Your task to perform on an android device: Go to Reddit.com Image 0: 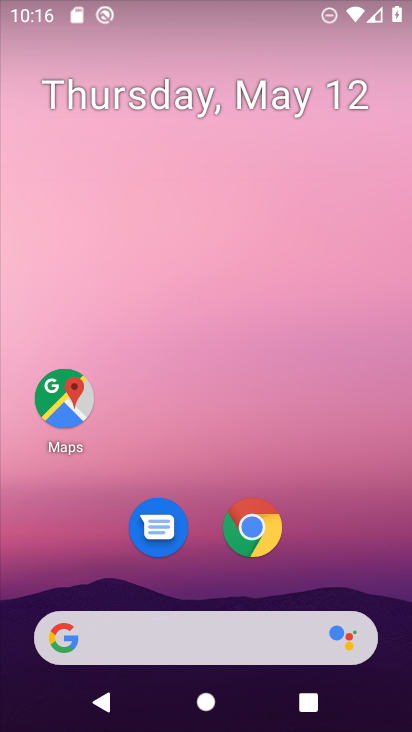
Step 0: click (245, 556)
Your task to perform on an android device: Go to Reddit.com Image 1: 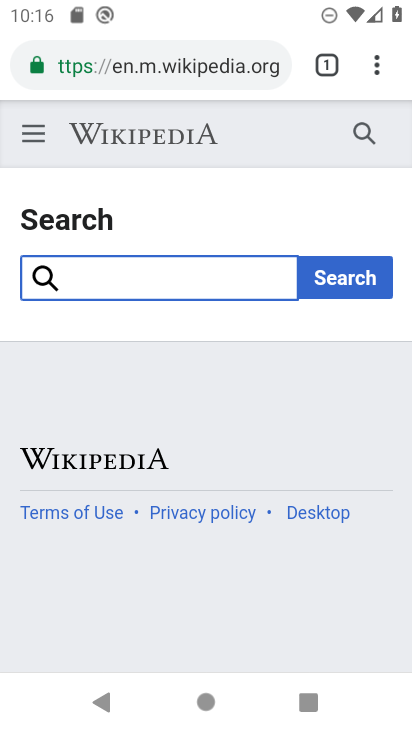
Step 1: click (210, 88)
Your task to perform on an android device: Go to Reddit.com Image 2: 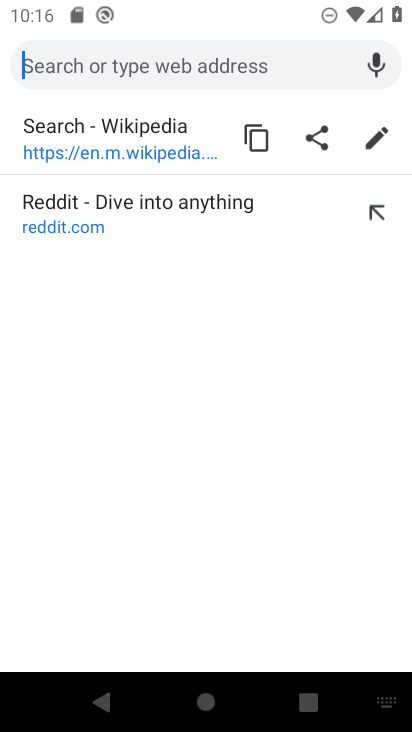
Step 2: type "reddit"
Your task to perform on an android device: Go to Reddit.com Image 3: 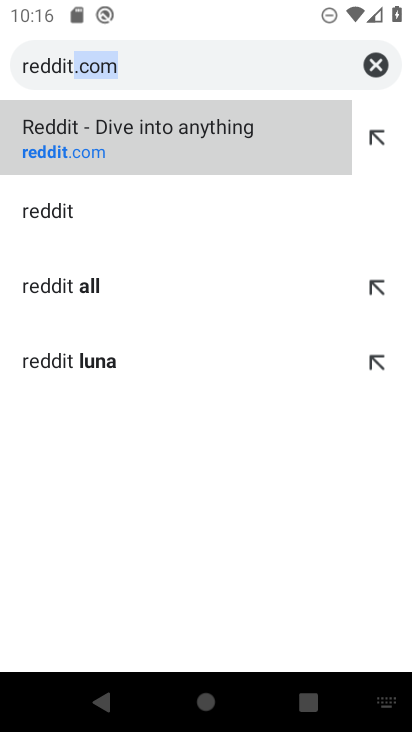
Step 3: click (128, 151)
Your task to perform on an android device: Go to Reddit.com Image 4: 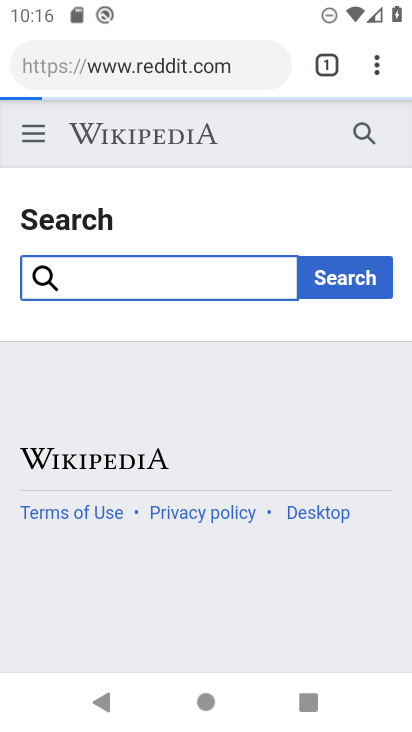
Step 4: task complete